Your task to perform on an android device: See recent photos Image 0: 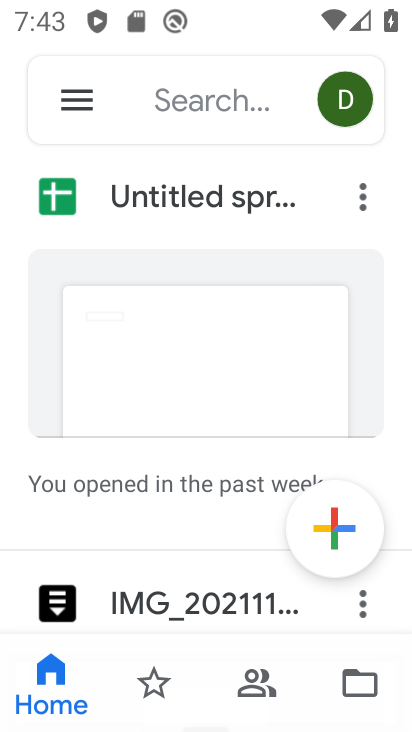
Step 0: press home button
Your task to perform on an android device: See recent photos Image 1: 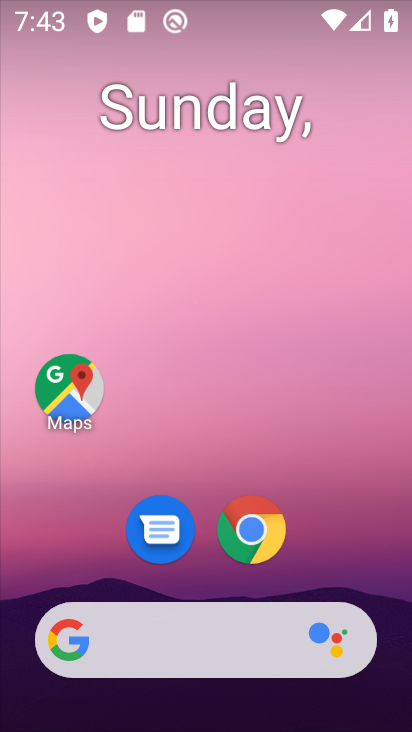
Step 1: drag from (364, 488) to (254, 108)
Your task to perform on an android device: See recent photos Image 2: 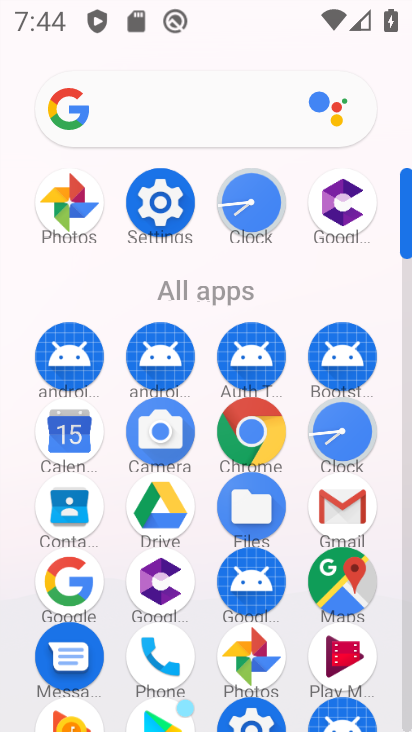
Step 2: click (72, 207)
Your task to perform on an android device: See recent photos Image 3: 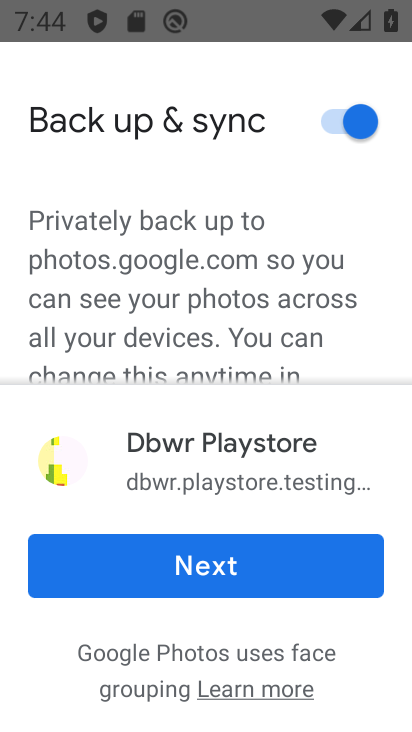
Step 3: click (336, 577)
Your task to perform on an android device: See recent photos Image 4: 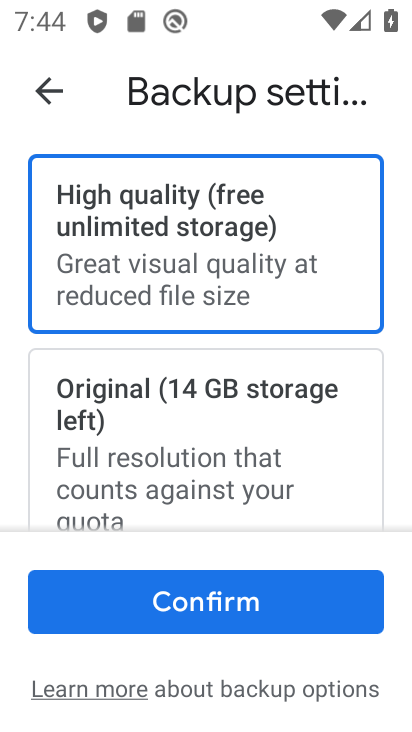
Step 4: click (319, 587)
Your task to perform on an android device: See recent photos Image 5: 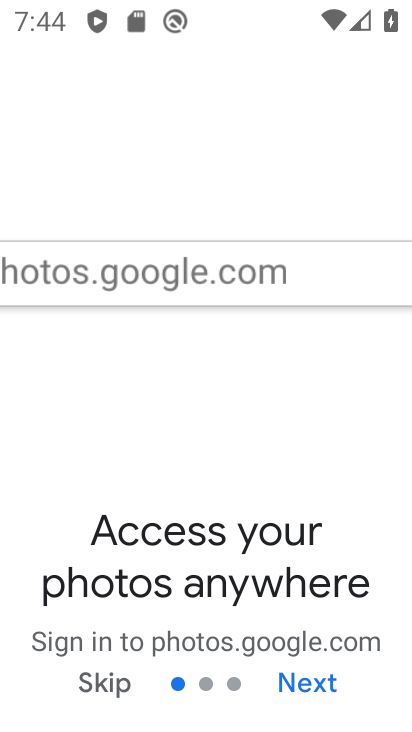
Step 5: click (293, 689)
Your task to perform on an android device: See recent photos Image 6: 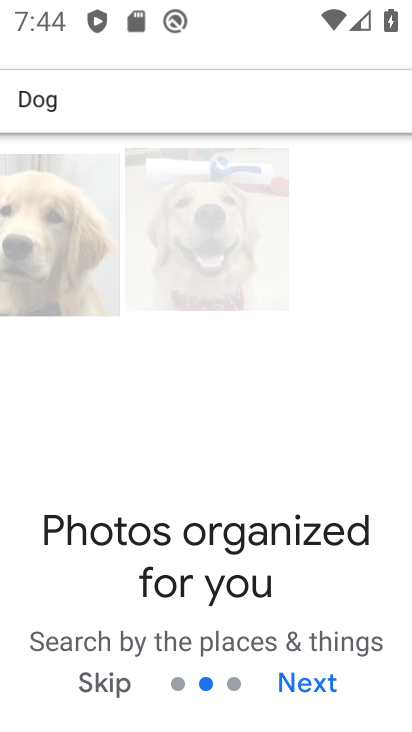
Step 6: click (117, 692)
Your task to perform on an android device: See recent photos Image 7: 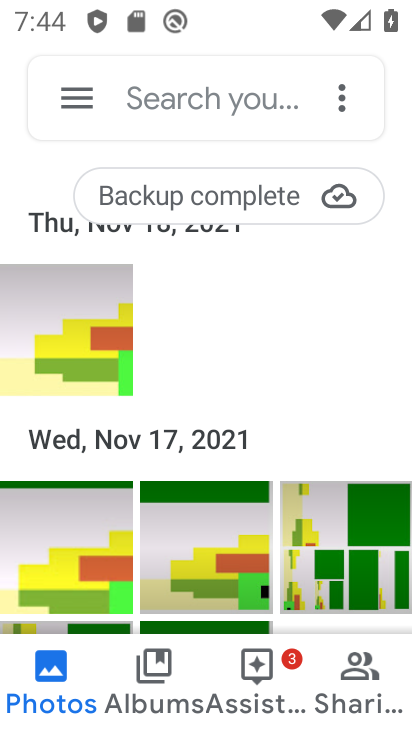
Step 7: task complete